Your task to perform on an android device: Search for Italian restaurants on Maps Image 0: 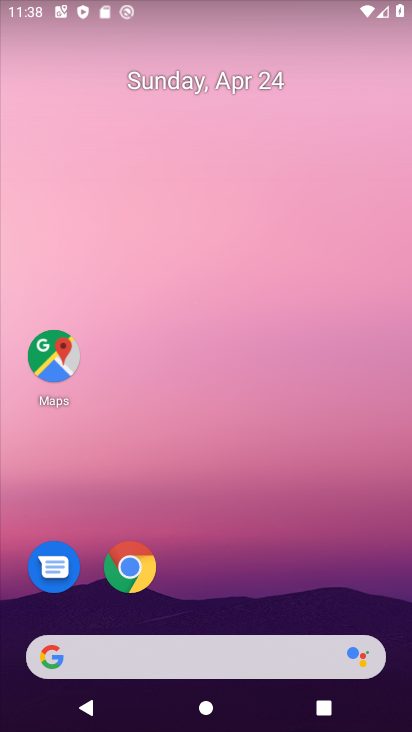
Step 0: drag from (230, 588) to (233, 363)
Your task to perform on an android device: Search for Italian restaurants on Maps Image 1: 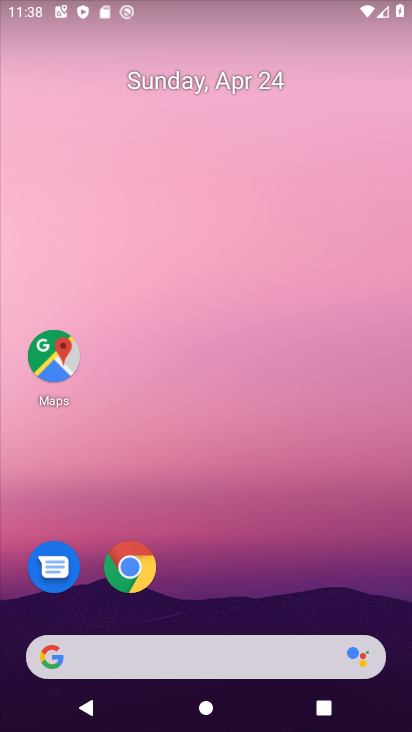
Step 1: drag from (244, 601) to (274, 116)
Your task to perform on an android device: Search for Italian restaurants on Maps Image 2: 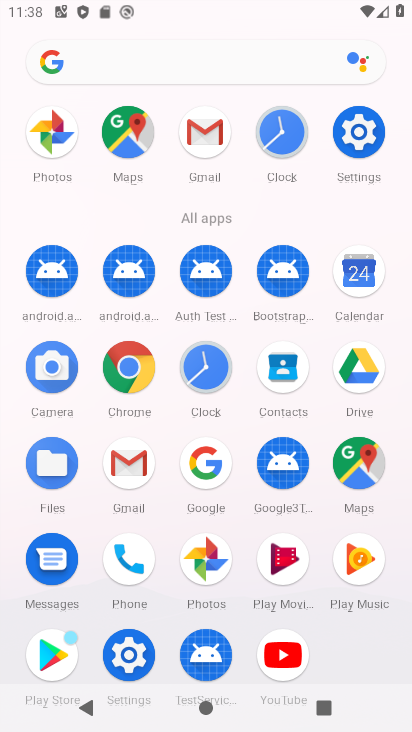
Step 2: click (130, 141)
Your task to perform on an android device: Search for Italian restaurants on Maps Image 3: 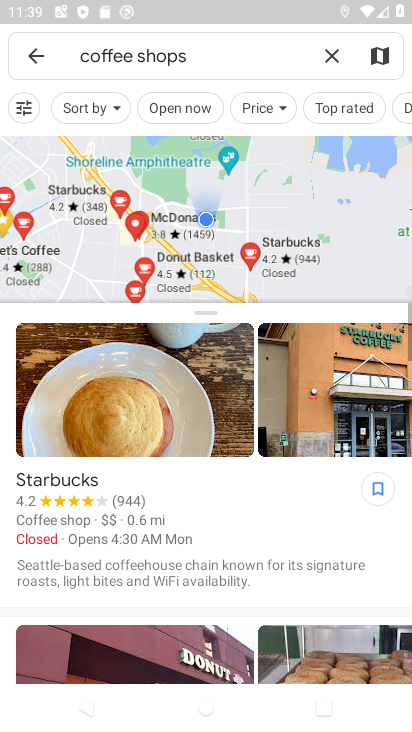
Step 3: click (328, 47)
Your task to perform on an android device: Search for Italian restaurants on Maps Image 4: 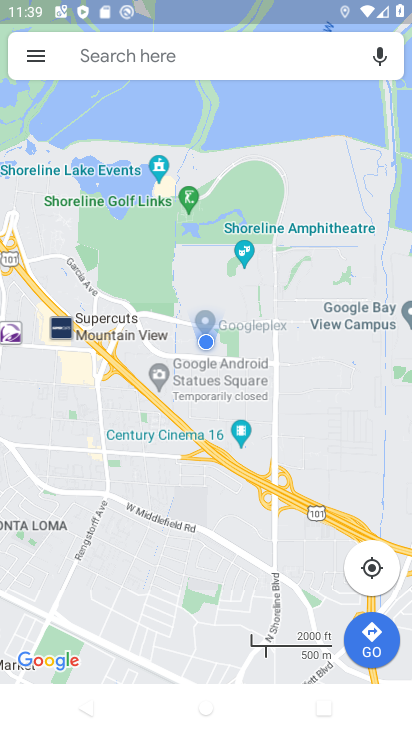
Step 4: click (139, 55)
Your task to perform on an android device: Search for Italian restaurants on Maps Image 5: 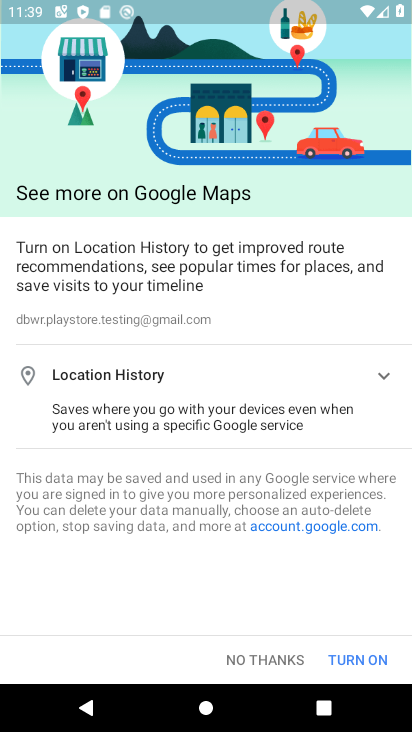
Step 5: click (275, 673)
Your task to perform on an android device: Search for Italian restaurants on Maps Image 6: 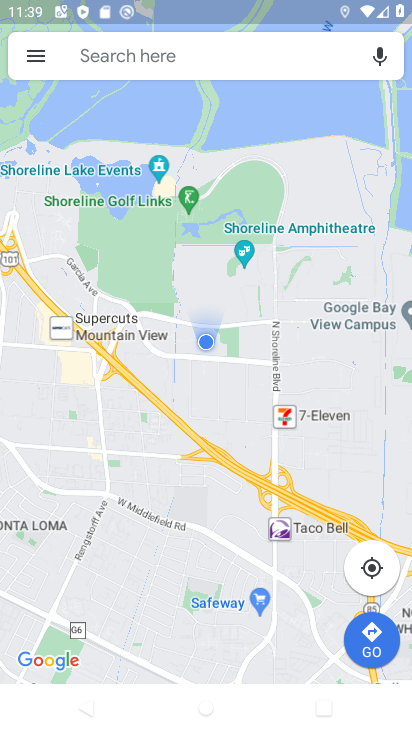
Step 6: click (164, 50)
Your task to perform on an android device: Search for Italian restaurants on Maps Image 7: 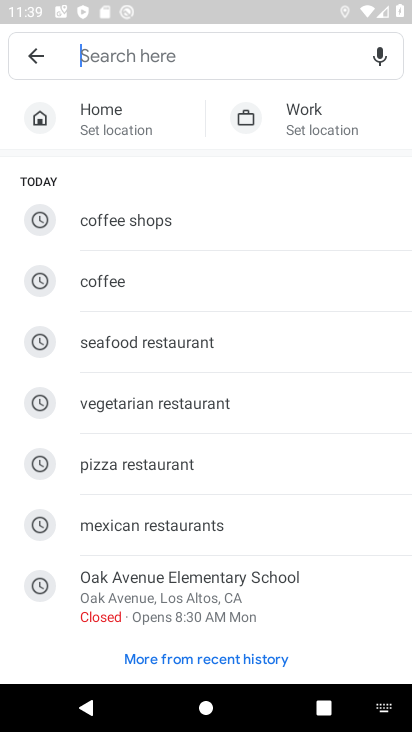
Step 7: drag from (260, 712) to (313, 730)
Your task to perform on an android device: Search for Italian restaurants on Maps Image 8: 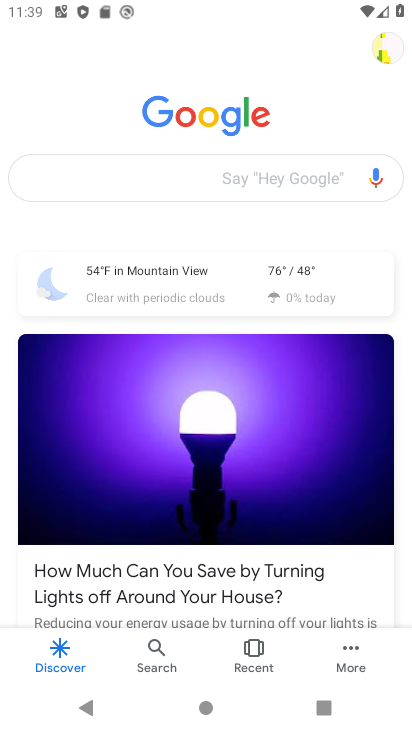
Step 8: press back button
Your task to perform on an android device: Search for Italian restaurants on Maps Image 9: 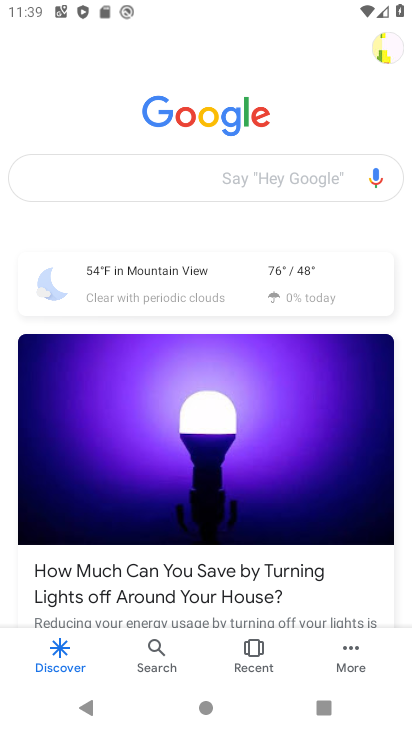
Step 9: drag from (313, 730) to (340, 140)
Your task to perform on an android device: Search for Italian restaurants on Maps Image 10: 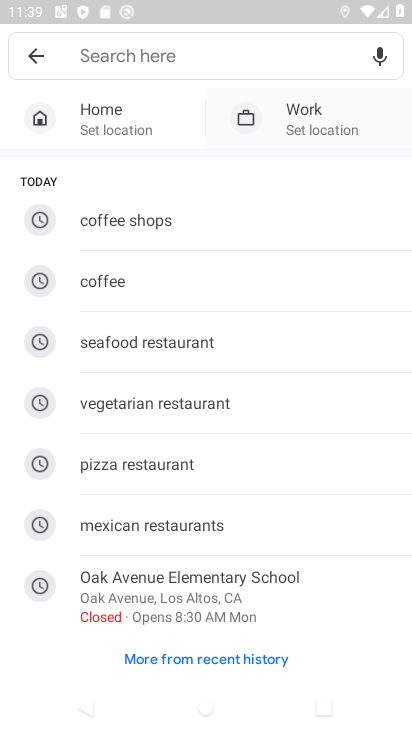
Step 10: click (181, 57)
Your task to perform on an android device: Search for Italian restaurants on Maps Image 11: 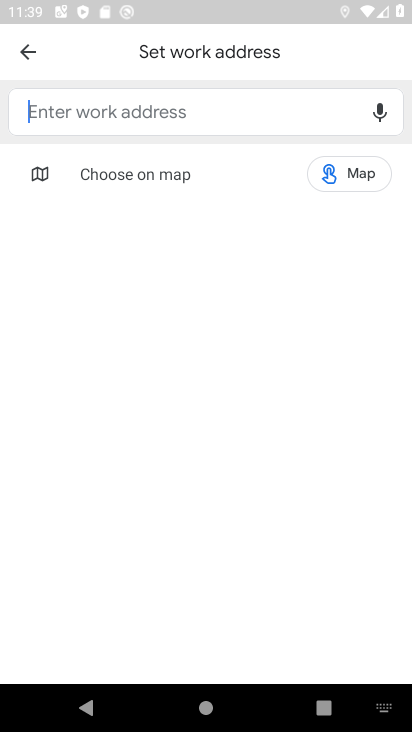
Step 11: press back button
Your task to perform on an android device: Search for Italian restaurants on Maps Image 12: 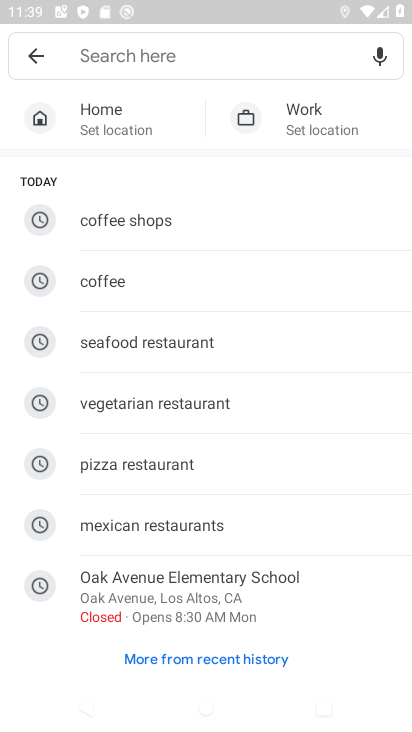
Step 12: click (161, 47)
Your task to perform on an android device: Search for Italian restaurants on Maps Image 13: 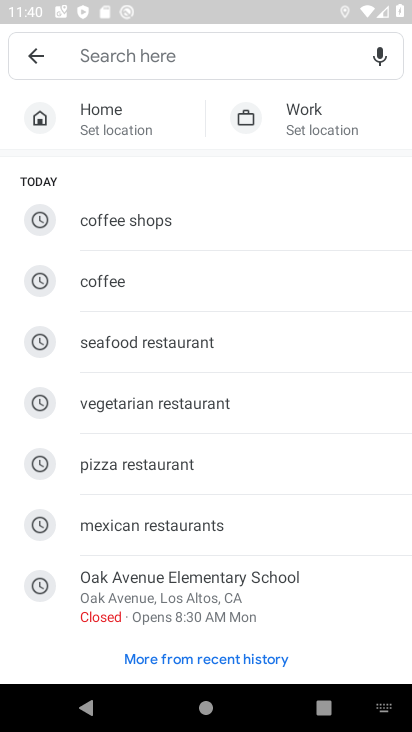
Step 13: type "Italian restaurants"
Your task to perform on an android device: Search for Italian restaurants on Maps Image 14: 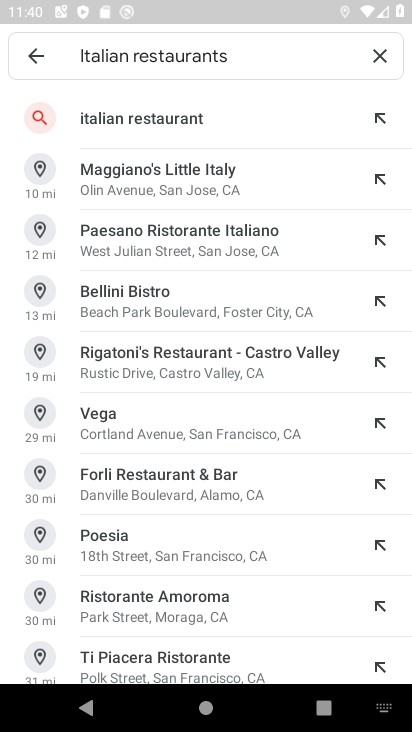
Step 14: click (237, 103)
Your task to perform on an android device: Search for Italian restaurants on Maps Image 15: 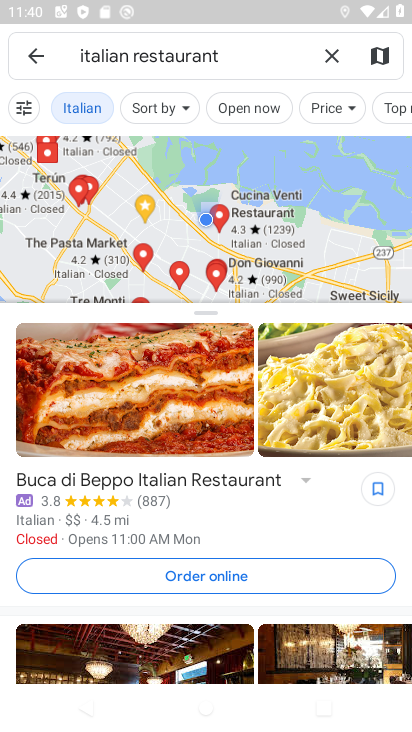
Step 15: task complete